Your task to perform on an android device: open app "Pinterest" (install if not already installed), go to login, and select forgot password Image 0: 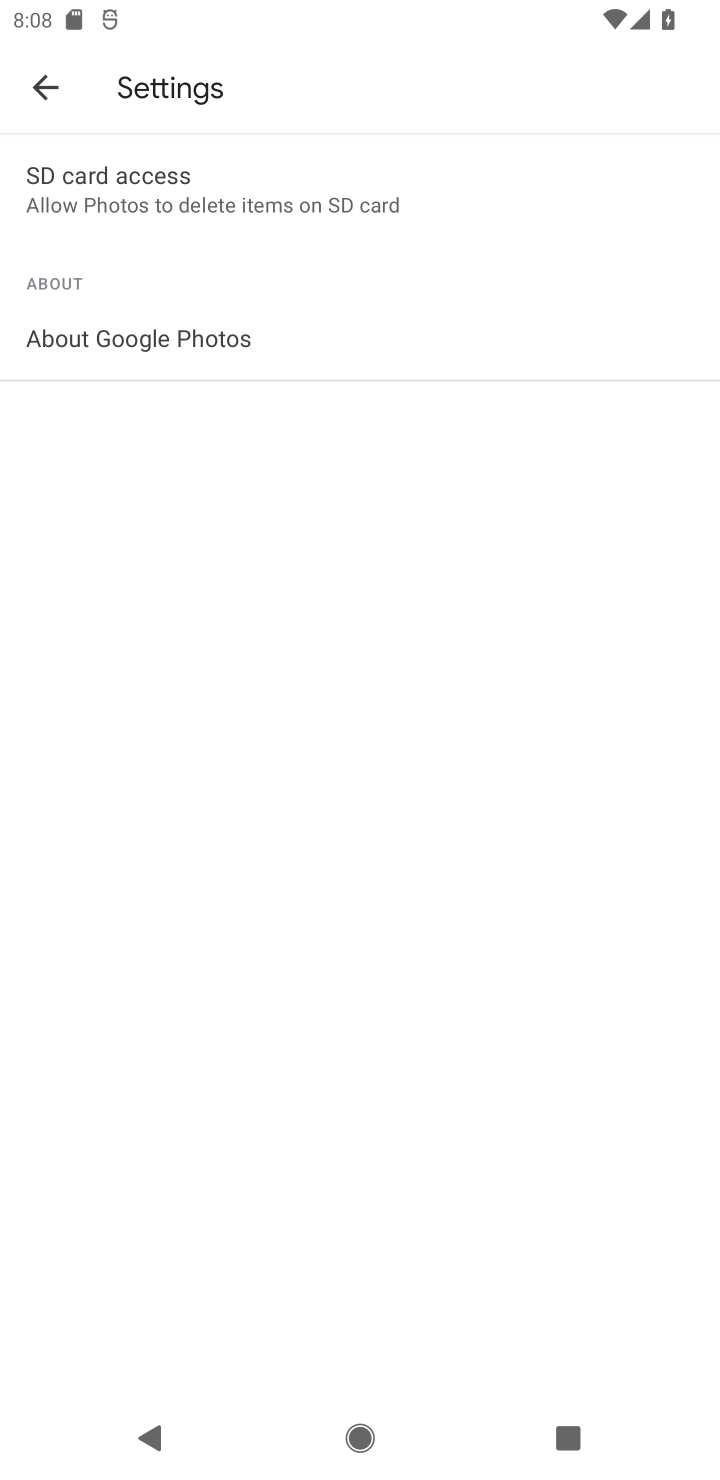
Step 0: press home button
Your task to perform on an android device: open app "Pinterest" (install if not already installed), go to login, and select forgot password Image 1: 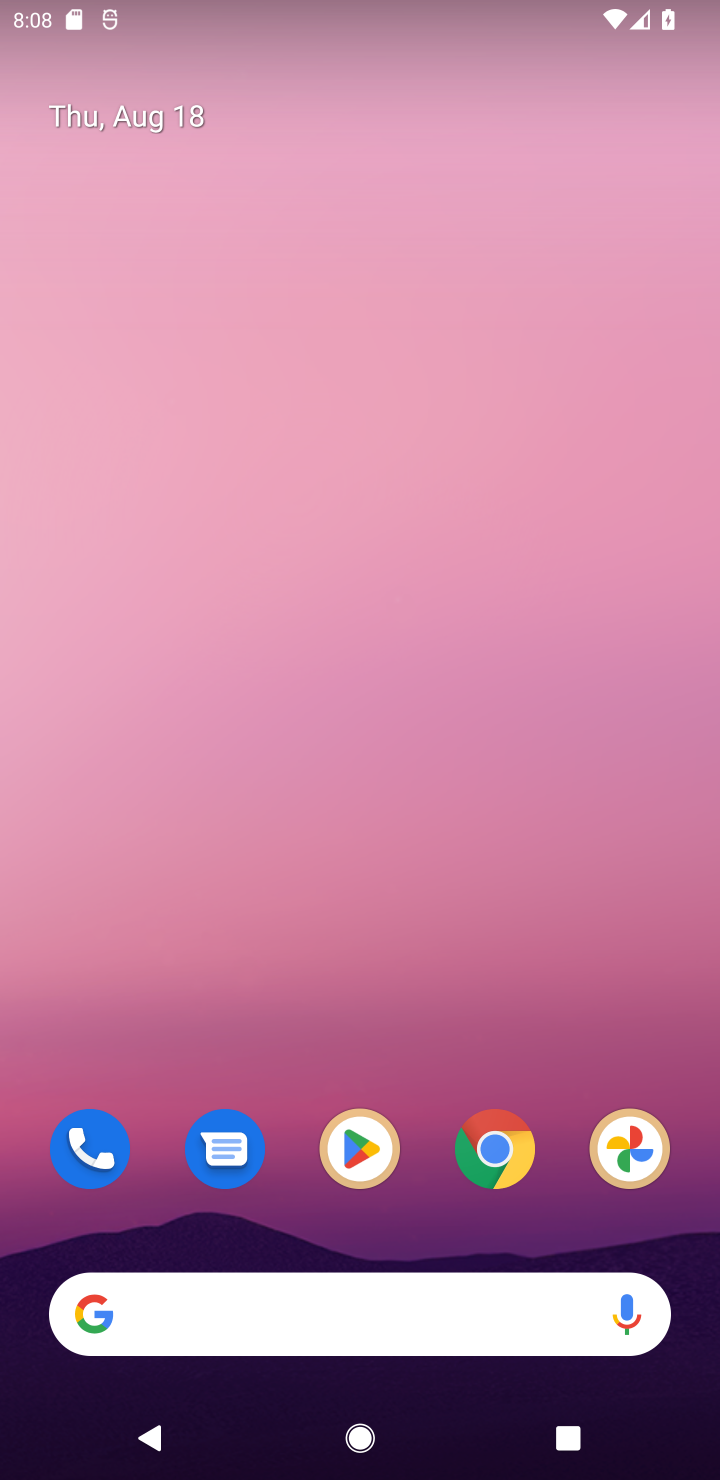
Step 1: drag from (614, 1110) to (234, 201)
Your task to perform on an android device: open app "Pinterest" (install if not already installed), go to login, and select forgot password Image 2: 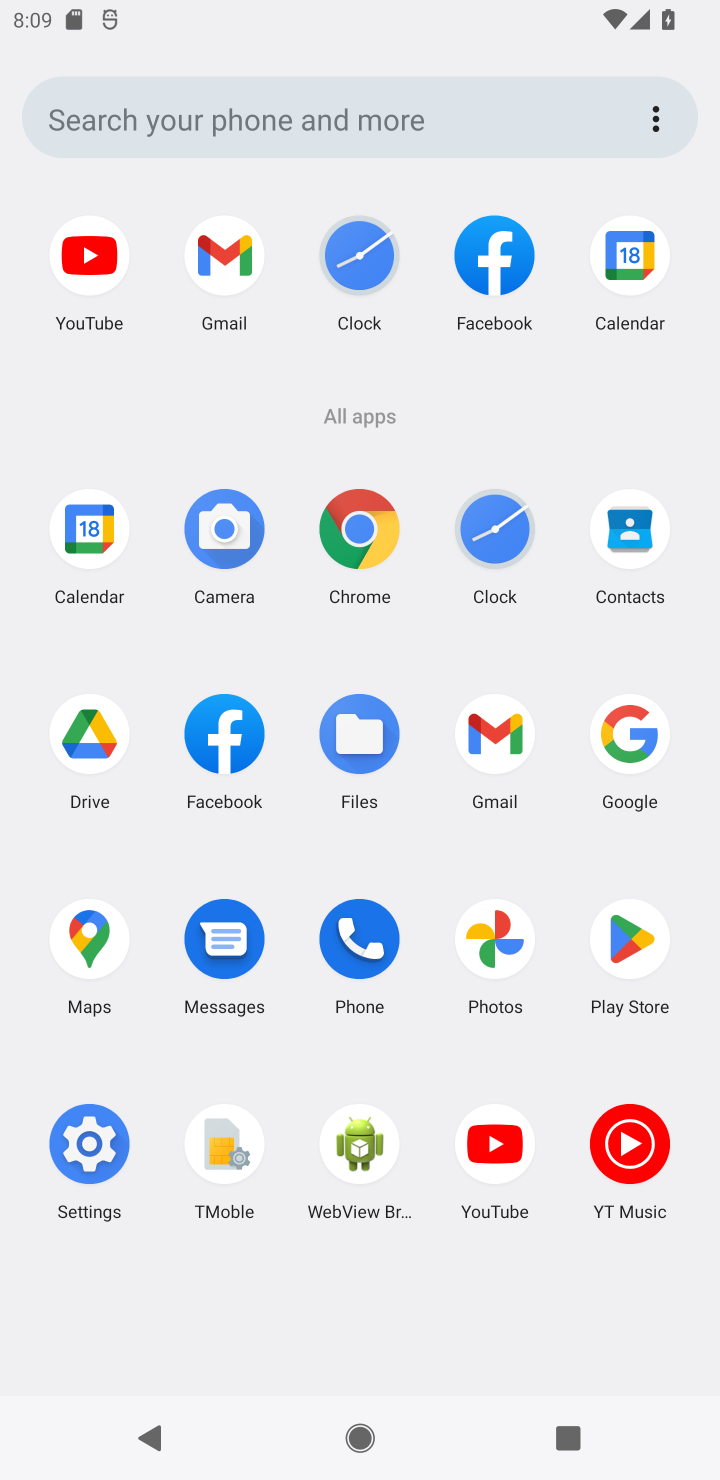
Step 2: click (608, 940)
Your task to perform on an android device: open app "Pinterest" (install if not already installed), go to login, and select forgot password Image 3: 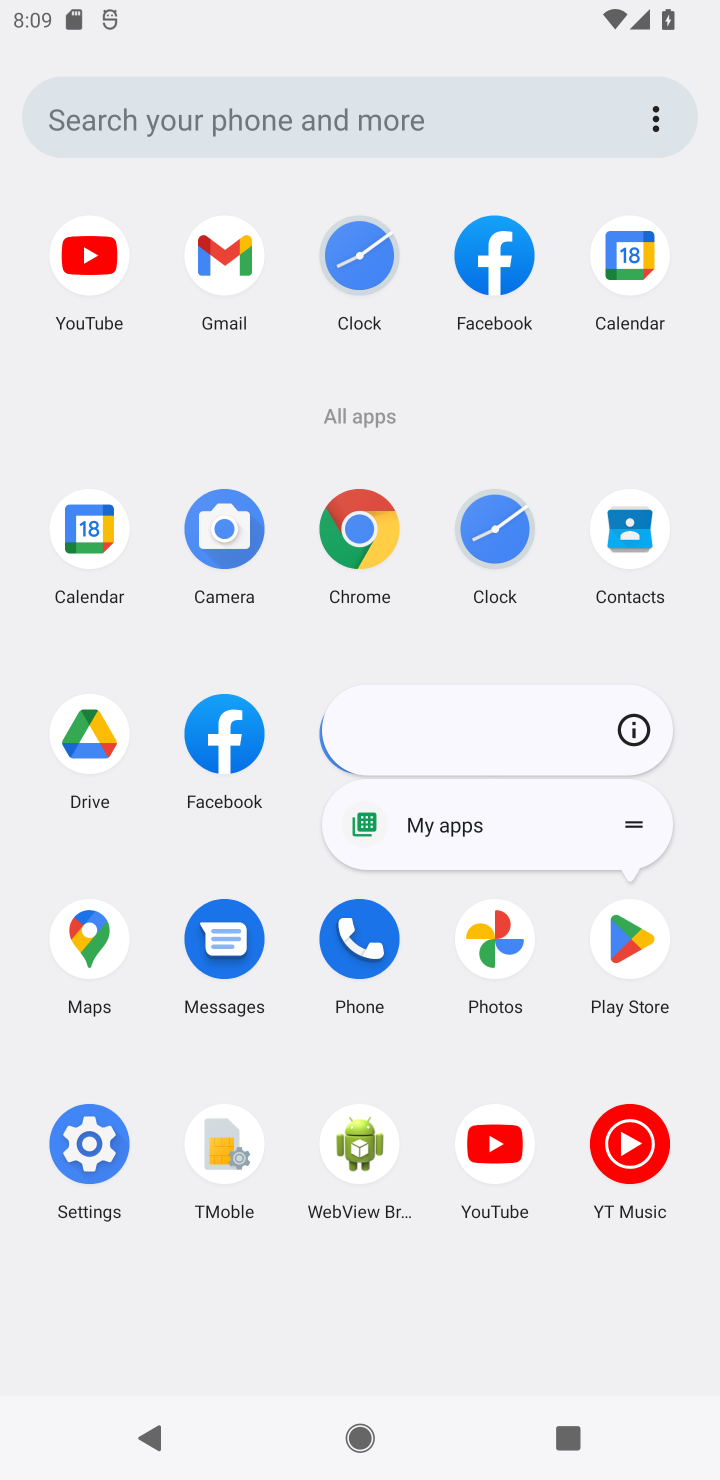
Step 3: click (608, 940)
Your task to perform on an android device: open app "Pinterest" (install if not already installed), go to login, and select forgot password Image 4: 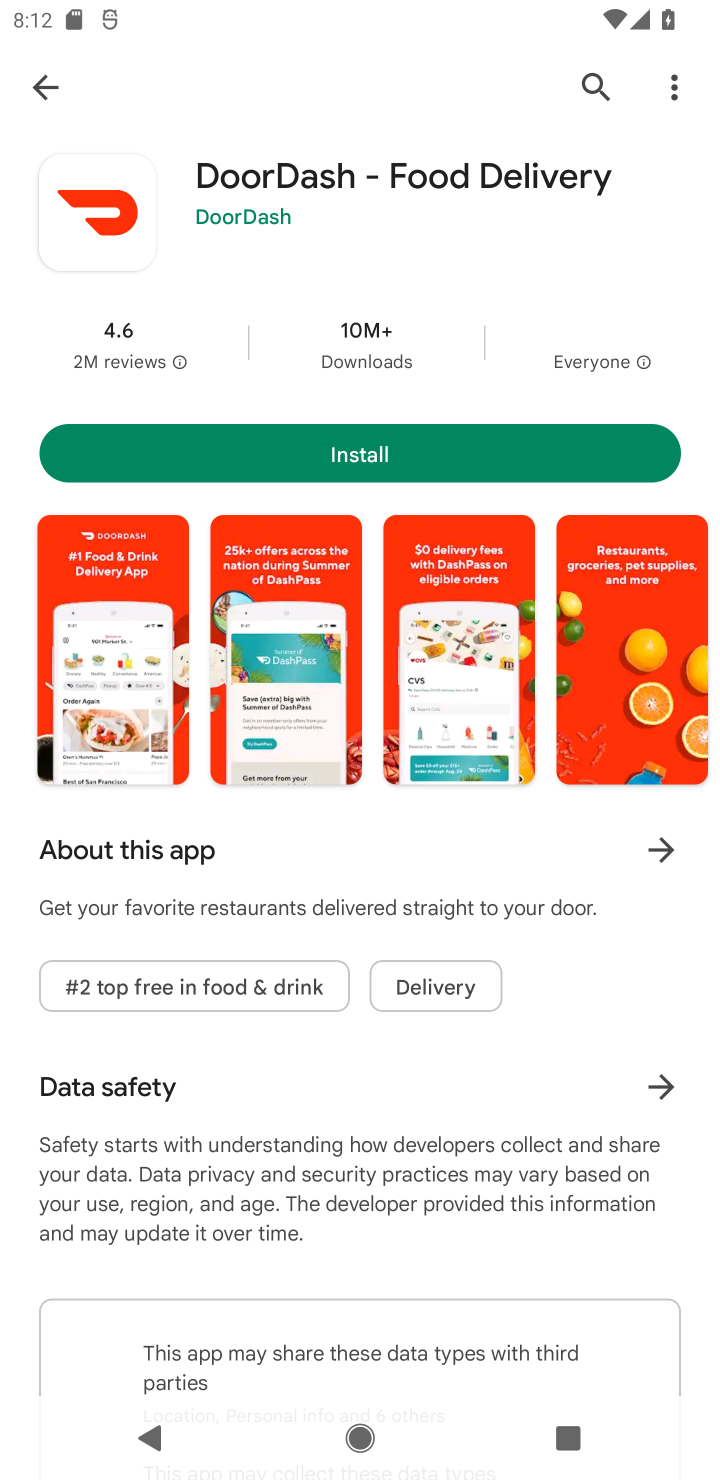
Step 4: press back button
Your task to perform on an android device: open app "Pinterest" (install if not already installed), go to login, and select forgot password Image 5: 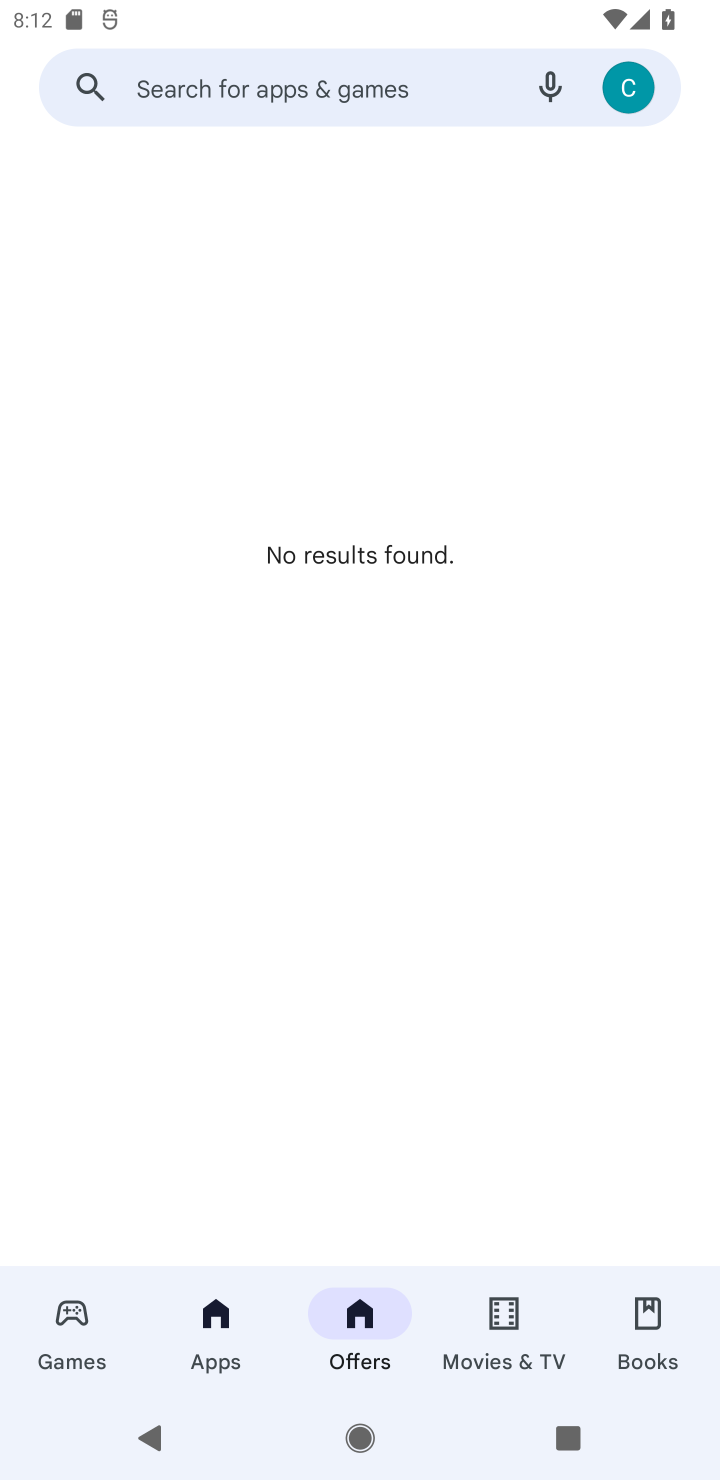
Step 5: click (327, 83)
Your task to perform on an android device: open app "Pinterest" (install if not already installed), go to login, and select forgot password Image 6: 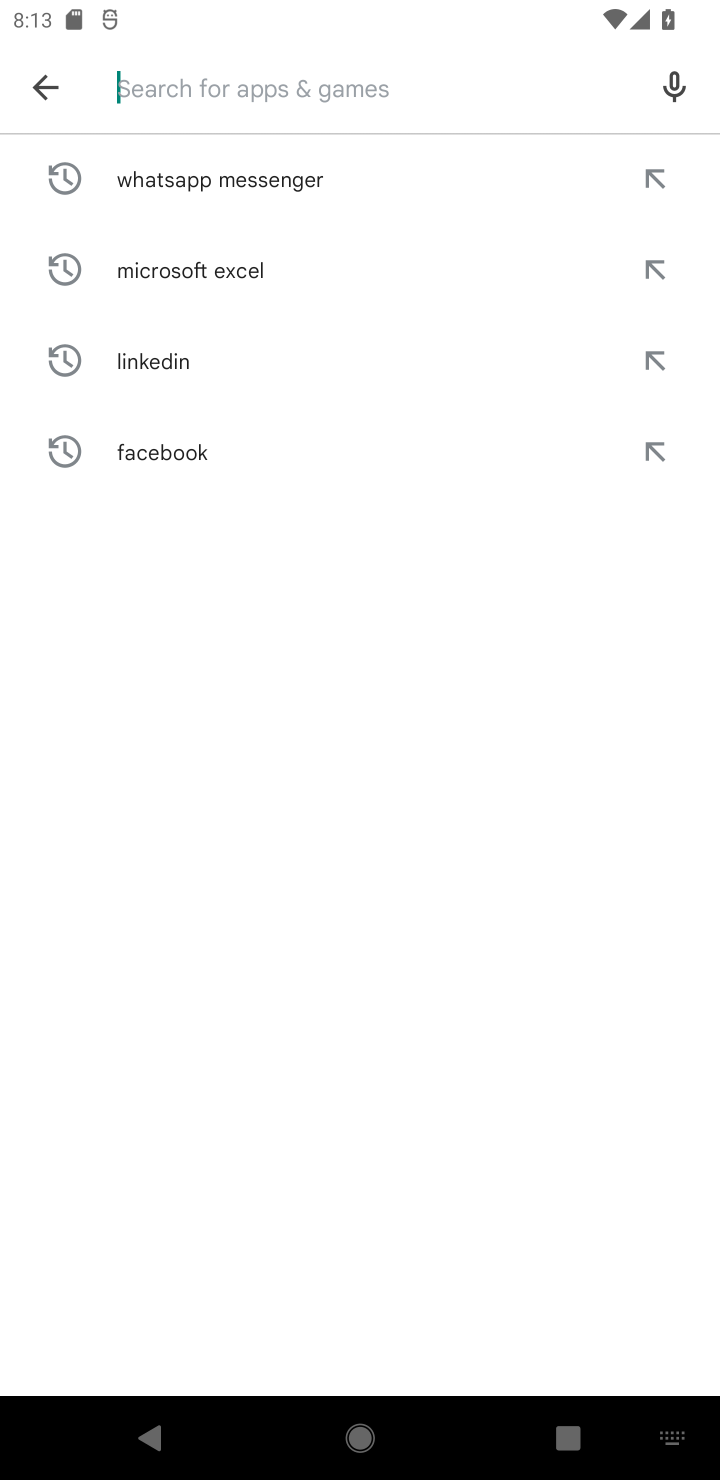
Step 6: type "Pinterest"
Your task to perform on an android device: open app "Pinterest" (install if not already installed), go to login, and select forgot password Image 7: 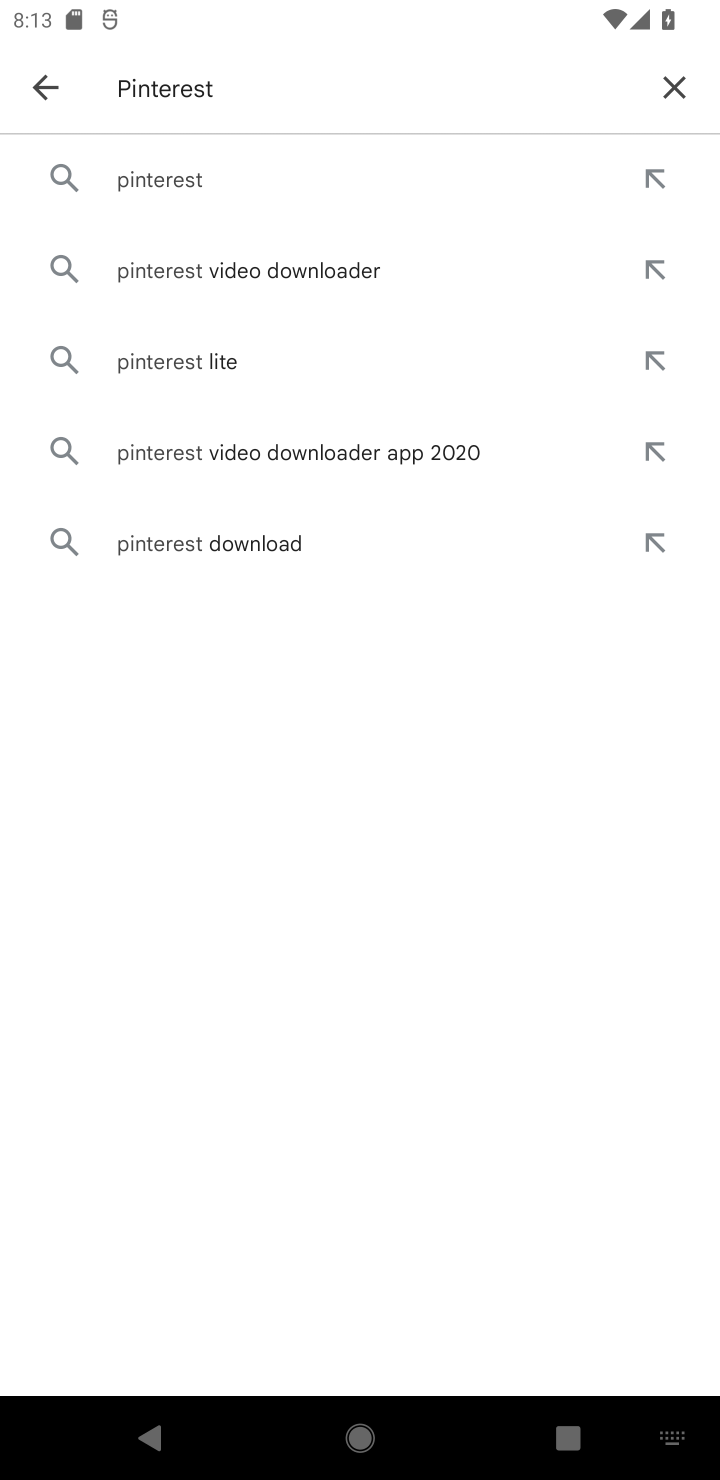
Step 7: click (209, 189)
Your task to perform on an android device: open app "Pinterest" (install if not already installed), go to login, and select forgot password Image 8: 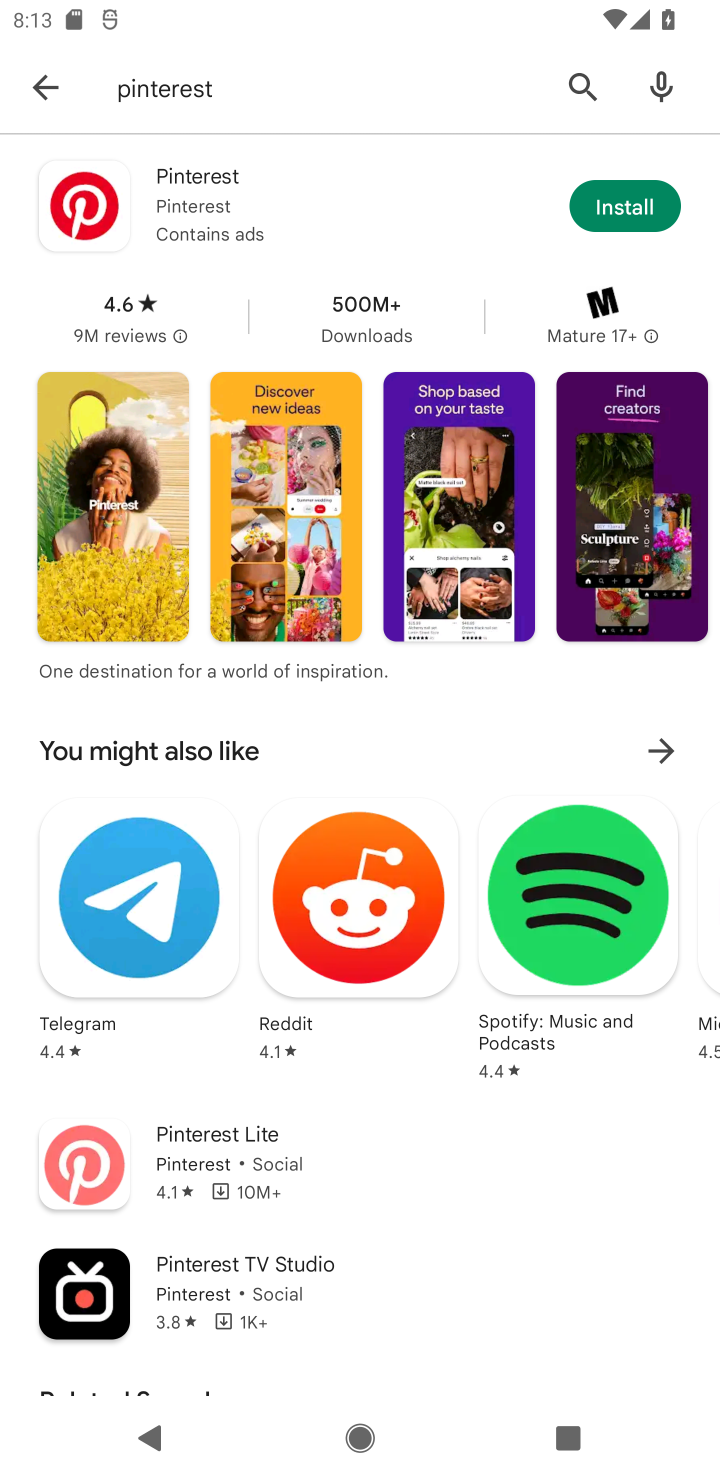
Step 8: task complete